Your task to perform on an android device: uninstall "Pluto TV - Live TV and Movies" Image 0: 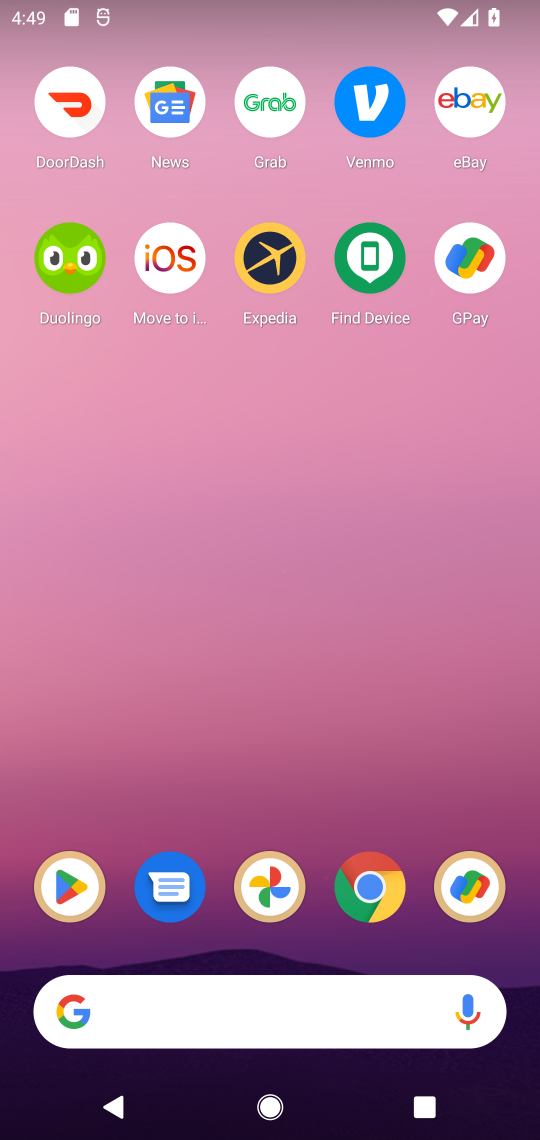
Step 0: click (70, 933)
Your task to perform on an android device: uninstall "Pluto TV - Live TV and Movies" Image 1: 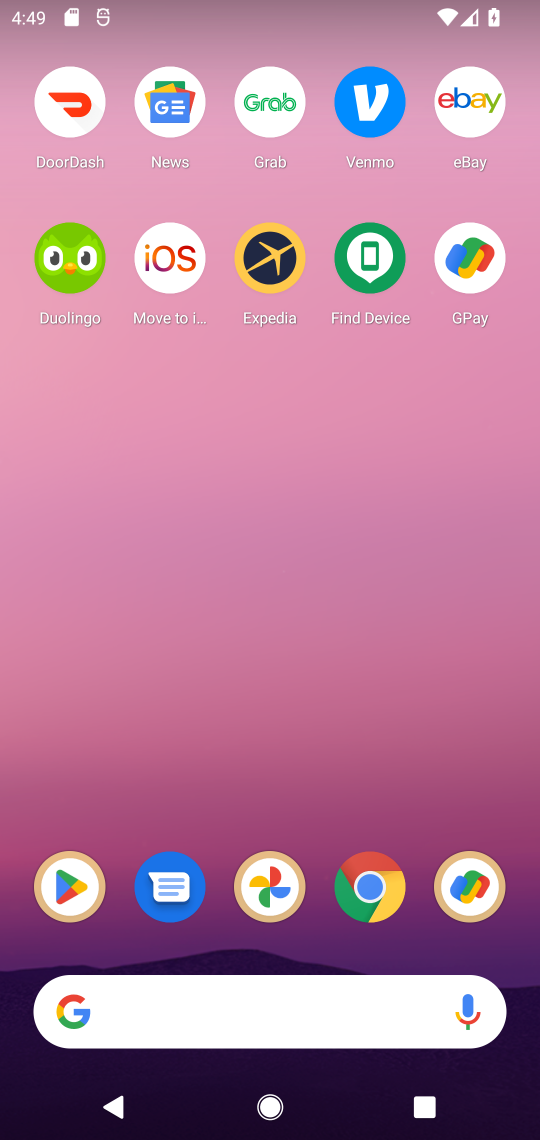
Step 1: click (64, 872)
Your task to perform on an android device: uninstall "Pluto TV - Live TV and Movies" Image 2: 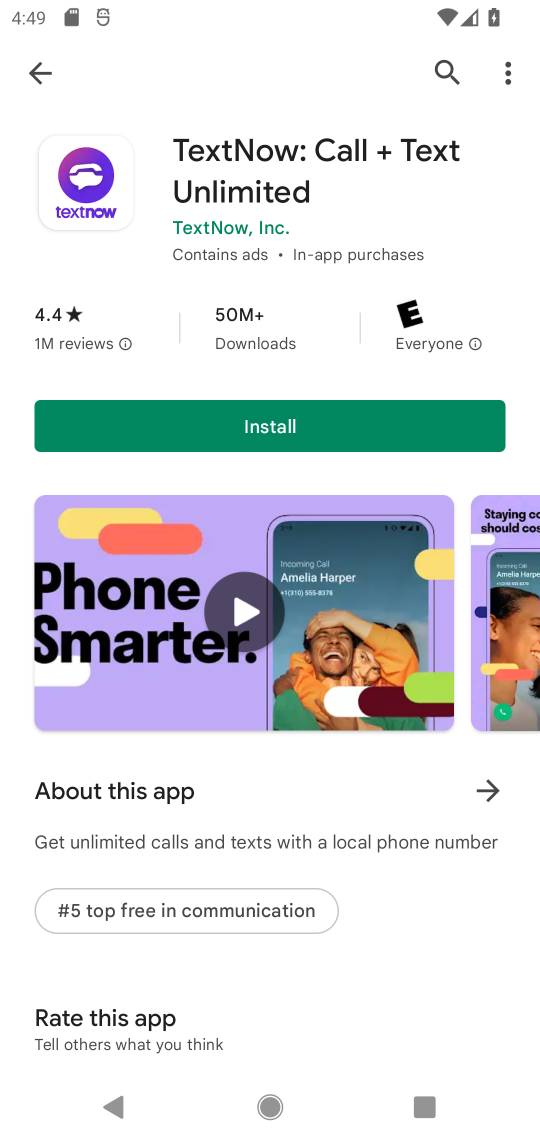
Step 2: click (18, 77)
Your task to perform on an android device: uninstall "Pluto TV - Live TV and Movies" Image 3: 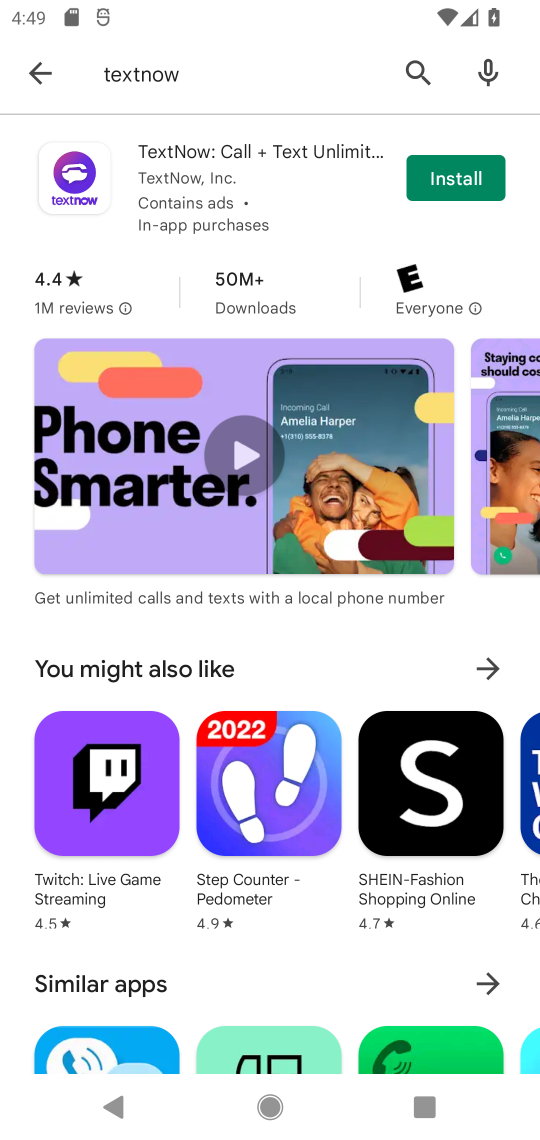
Step 3: click (54, 77)
Your task to perform on an android device: uninstall "Pluto TV - Live TV and Movies" Image 4: 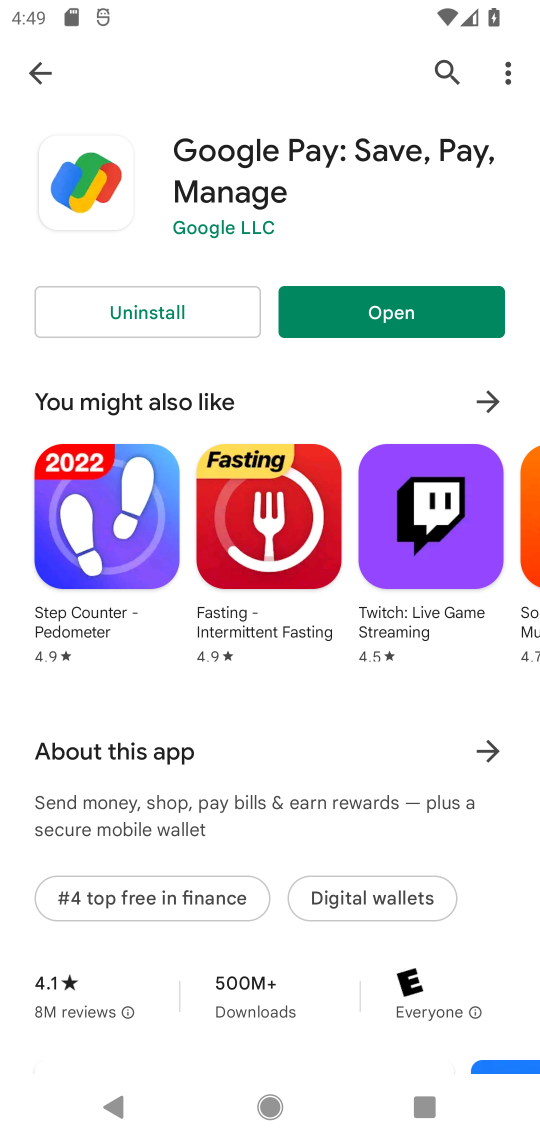
Step 4: click (63, 92)
Your task to perform on an android device: uninstall "Pluto TV - Live TV and Movies" Image 5: 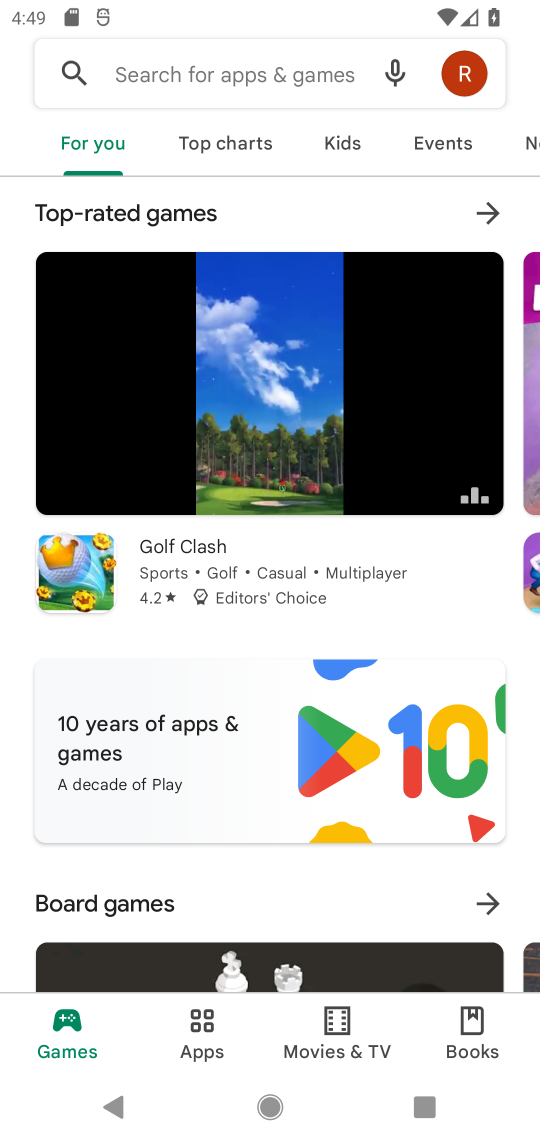
Step 5: click (297, 64)
Your task to perform on an android device: uninstall "Pluto TV - Live TV and Movies" Image 6: 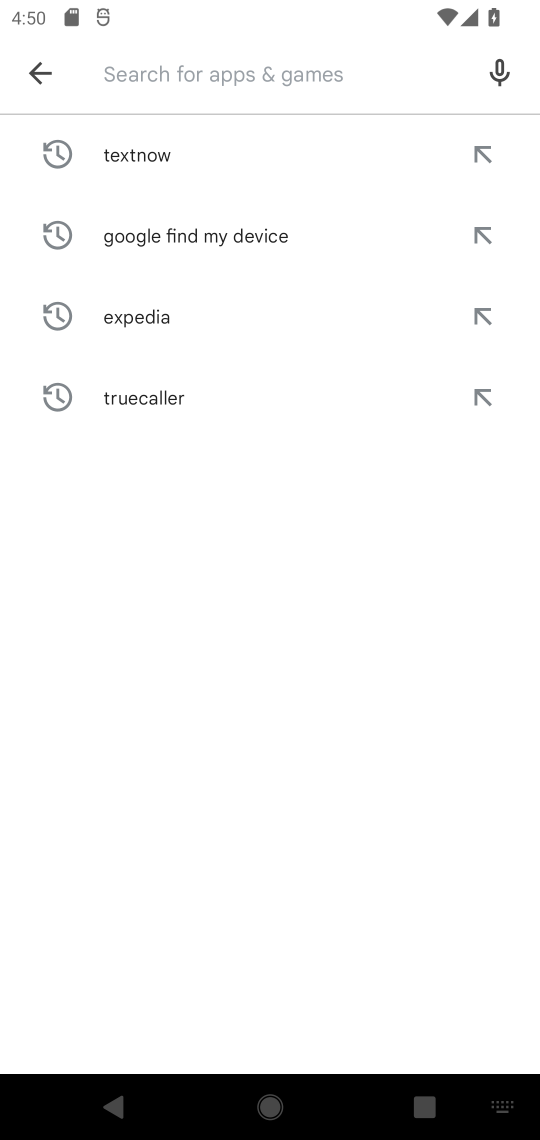
Step 6: type "Pluto"
Your task to perform on an android device: uninstall "Pluto TV - Live TV and Movies" Image 7: 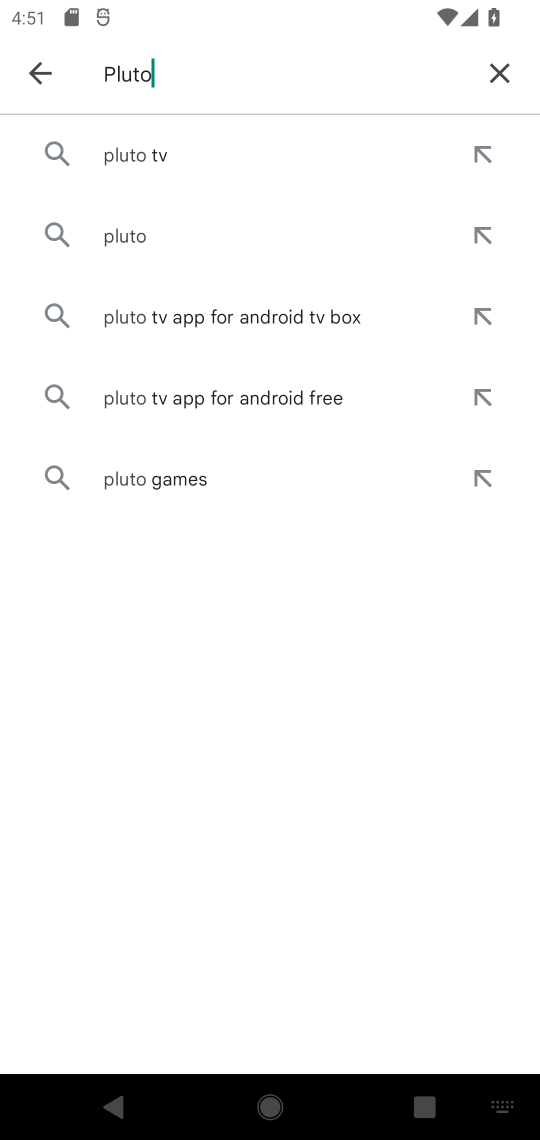
Step 7: click (299, 156)
Your task to perform on an android device: uninstall "Pluto TV - Live TV and Movies" Image 8: 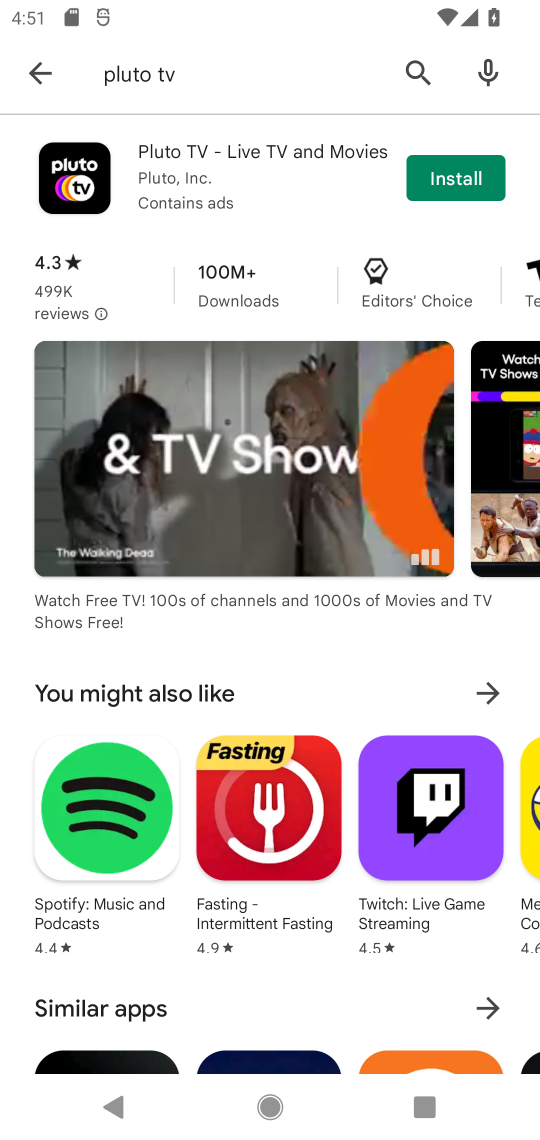
Step 8: task complete